Your task to perform on an android device: What is the news today? Image 0: 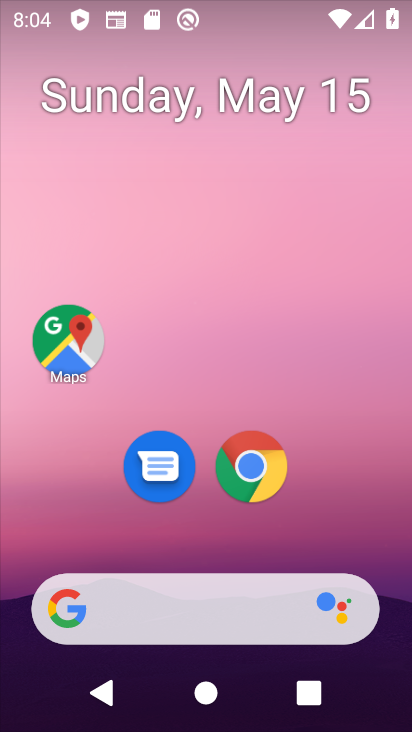
Step 0: click (209, 608)
Your task to perform on an android device: What is the news today? Image 1: 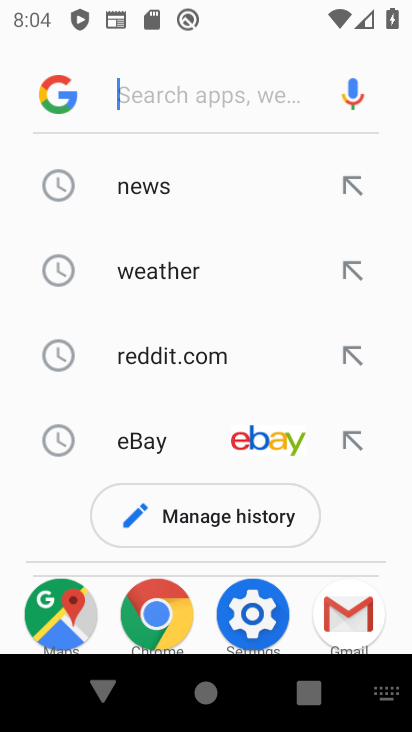
Step 1: click (141, 180)
Your task to perform on an android device: What is the news today? Image 2: 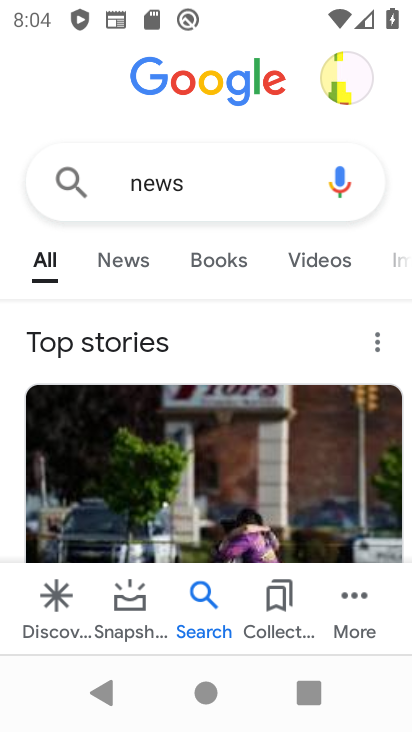
Step 2: click (111, 248)
Your task to perform on an android device: What is the news today? Image 3: 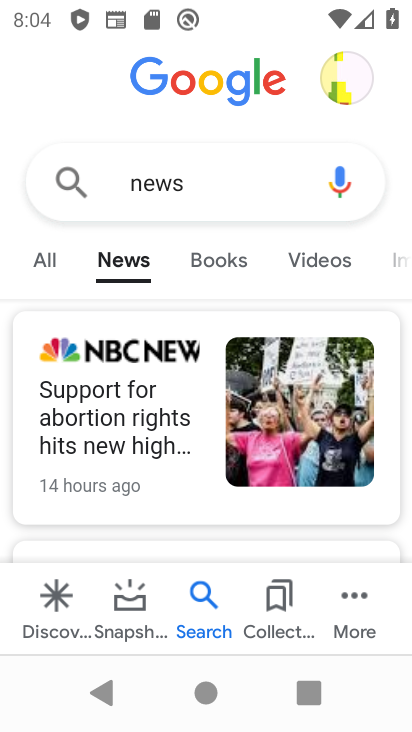
Step 3: task complete